Your task to perform on an android device: add a label to a message in the gmail app Image 0: 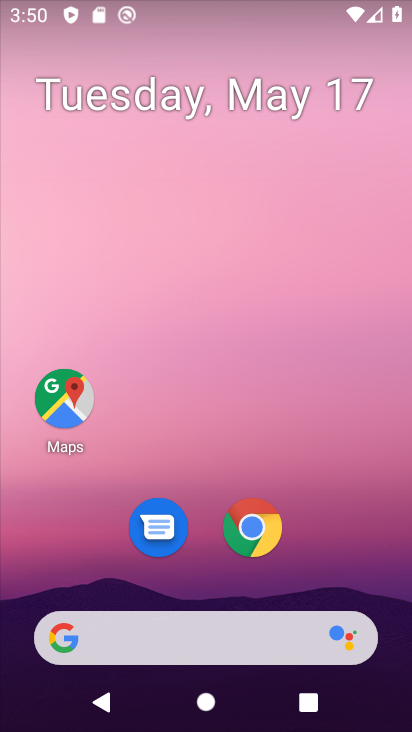
Step 0: drag from (93, 544) to (224, 85)
Your task to perform on an android device: add a label to a message in the gmail app Image 1: 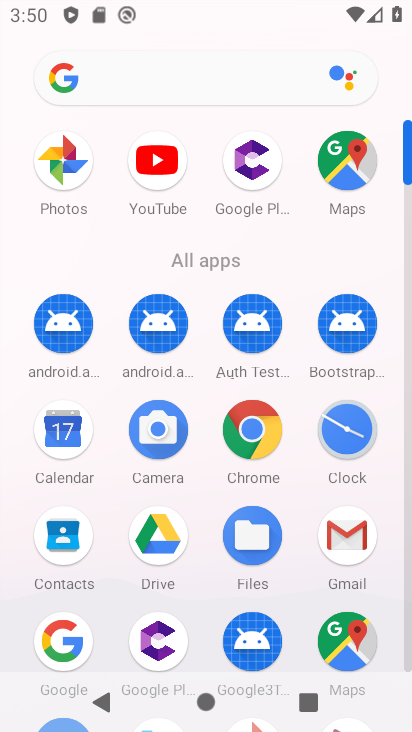
Step 1: click (345, 533)
Your task to perform on an android device: add a label to a message in the gmail app Image 2: 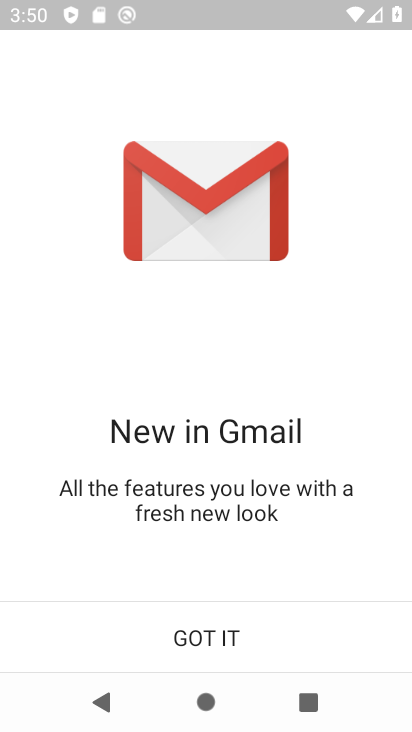
Step 2: click (234, 649)
Your task to perform on an android device: add a label to a message in the gmail app Image 3: 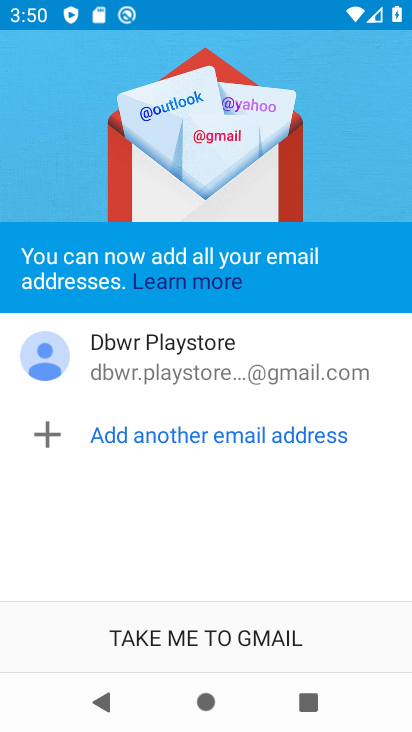
Step 3: click (249, 638)
Your task to perform on an android device: add a label to a message in the gmail app Image 4: 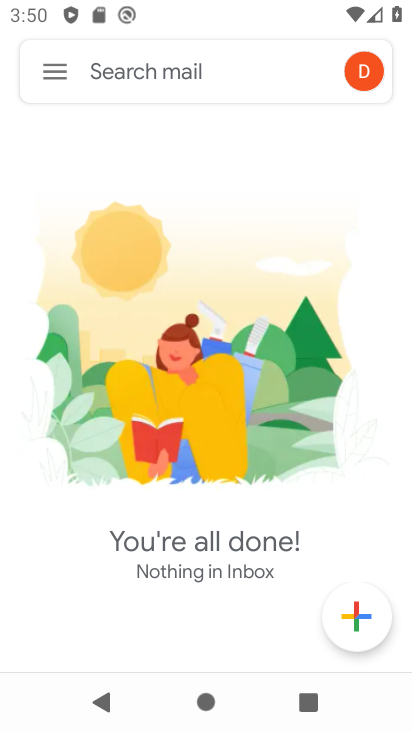
Step 4: click (72, 75)
Your task to perform on an android device: add a label to a message in the gmail app Image 5: 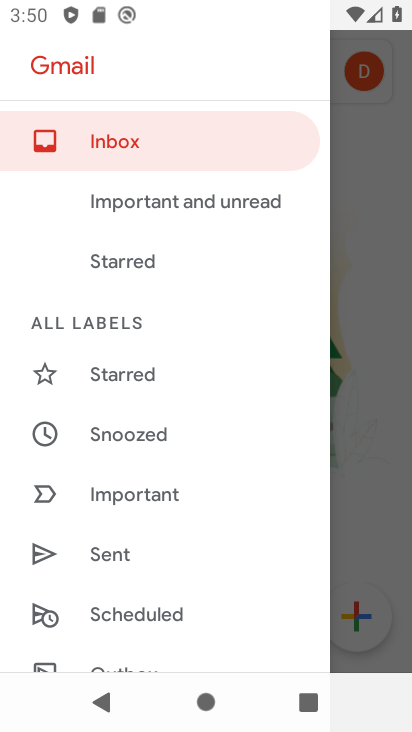
Step 5: drag from (141, 573) to (227, 257)
Your task to perform on an android device: add a label to a message in the gmail app Image 6: 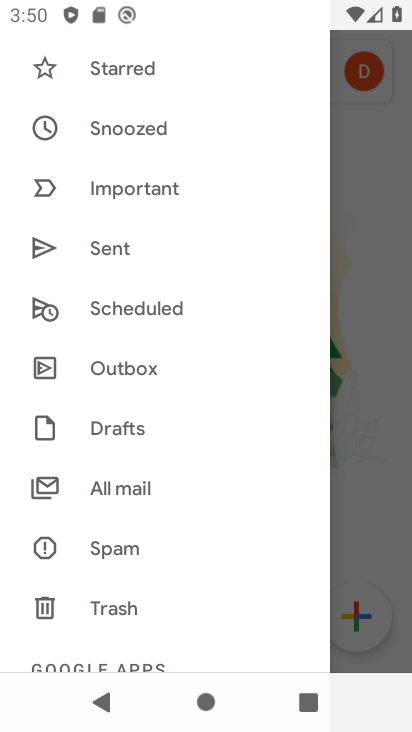
Step 6: drag from (178, 616) to (245, 263)
Your task to perform on an android device: add a label to a message in the gmail app Image 7: 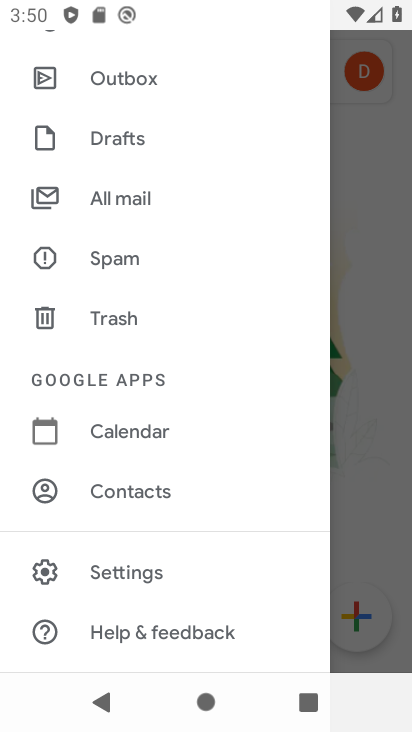
Step 7: click (175, 192)
Your task to perform on an android device: add a label to a message in the gmail app Image 8: 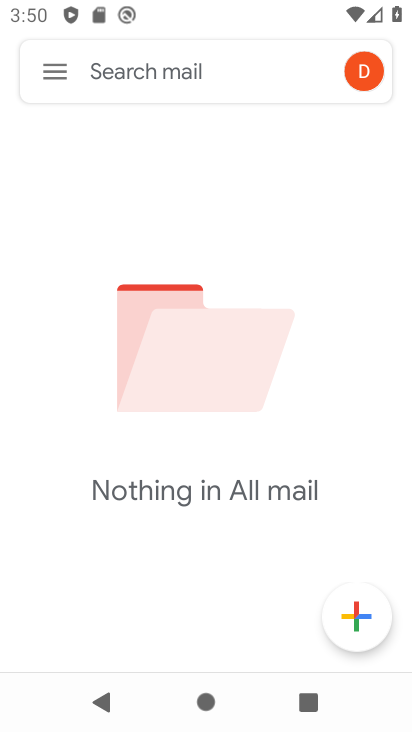
Step 8: task complete